Your task to perform on an android device: Open eBay Image 0: 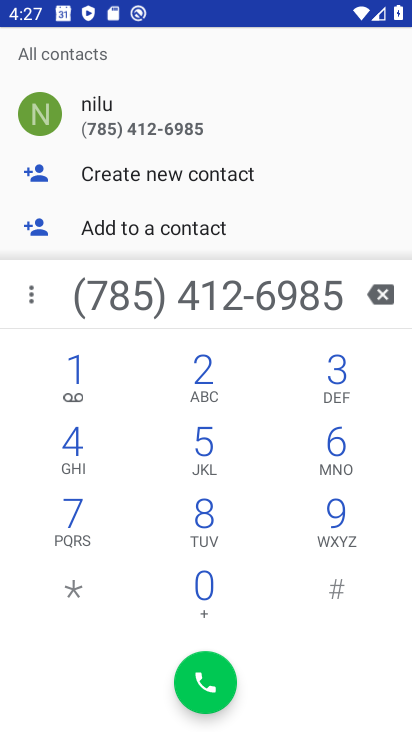
Step 0: press home button
Your task to perform on an android device: Open eBay Image 1: 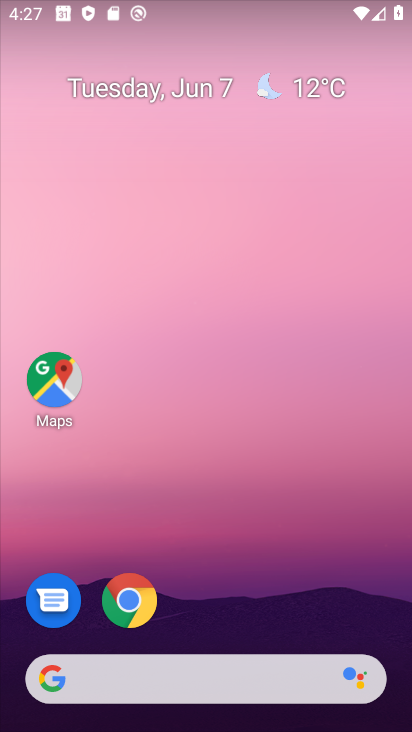
Step 1: drag from (202, 646) to (188, 289)
Your task to perform on an android device: Open eBay Image 2: 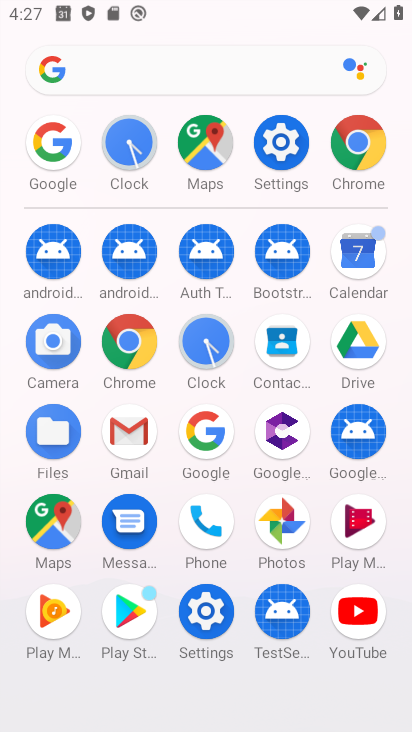
Step 2: click (132, 353)
Your task to perform on an android device: Open eBay Image 3: 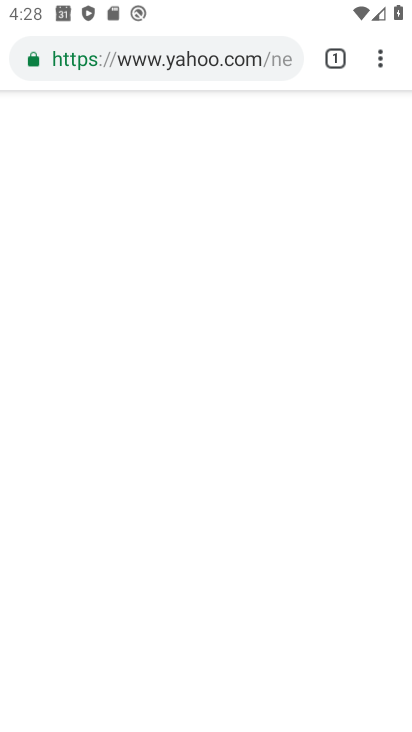
Step 3: click (336, 57)
Your task to perform on an android device: Open eBay Image 4: 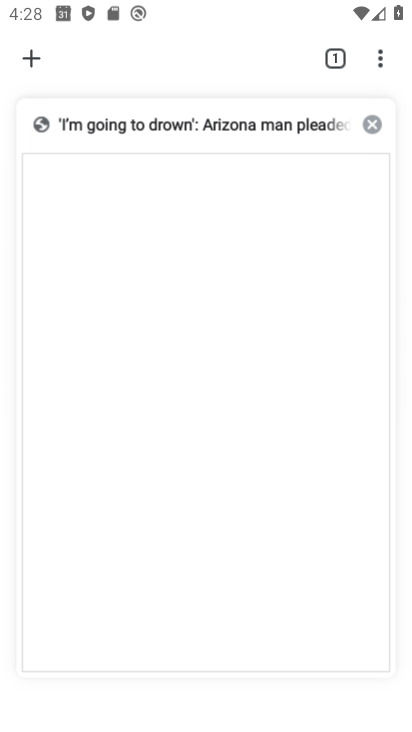
Step 4: click (368, 133)
Your task to perform on an android device: Open eBay Image 5: 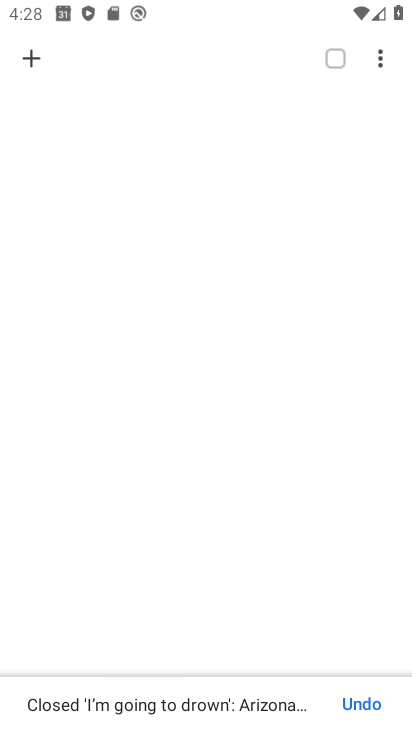
Step 5: click (26, 60)
Your task to perform on an android device: Open eBay Image 6: 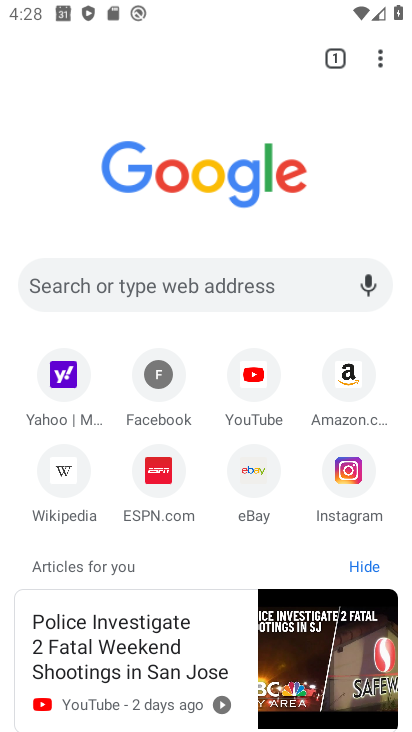
Step 6: click (262, 472)
Your task to perform on an android device: Open eBay Image 7: 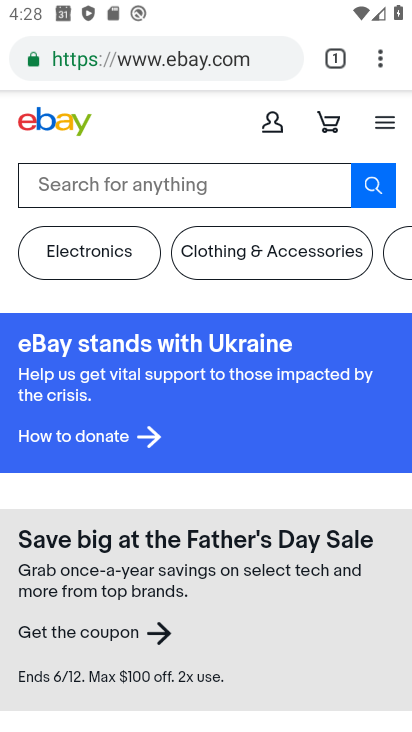
Step 7: task complete